Your task to perform on an android device: turn off picture-in-picture Image 0: 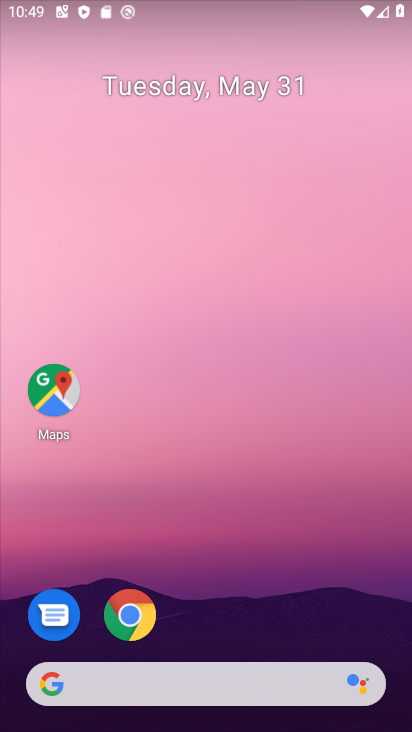
Step 0: drag from (295, 617) to (164, 173)
Your task to perform on an android device: turn off picture-in-picture Image 1: 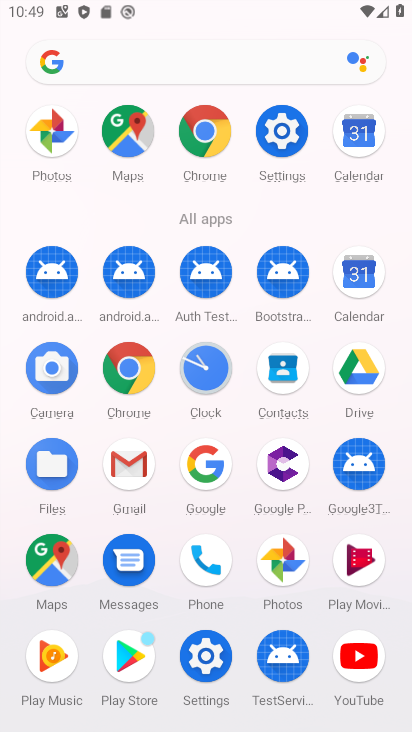
Step 1: click (164, 173)
Your task to perform on an android device: turn off picture-in-picture Image 2: 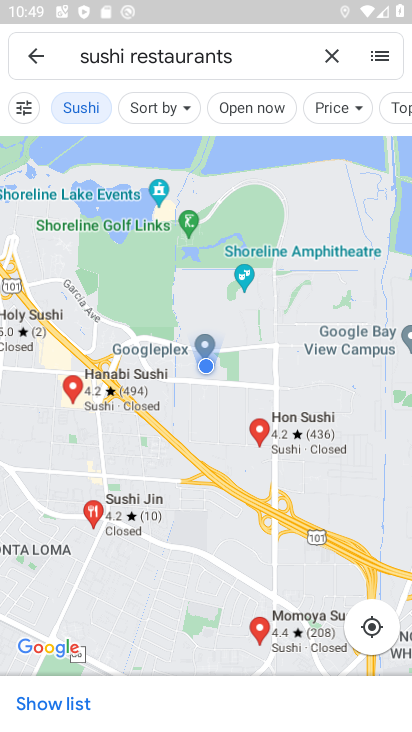
Step 2: task complete